Your task to perform on an android device: How do I get to the nearest Starbucks? Image 0: 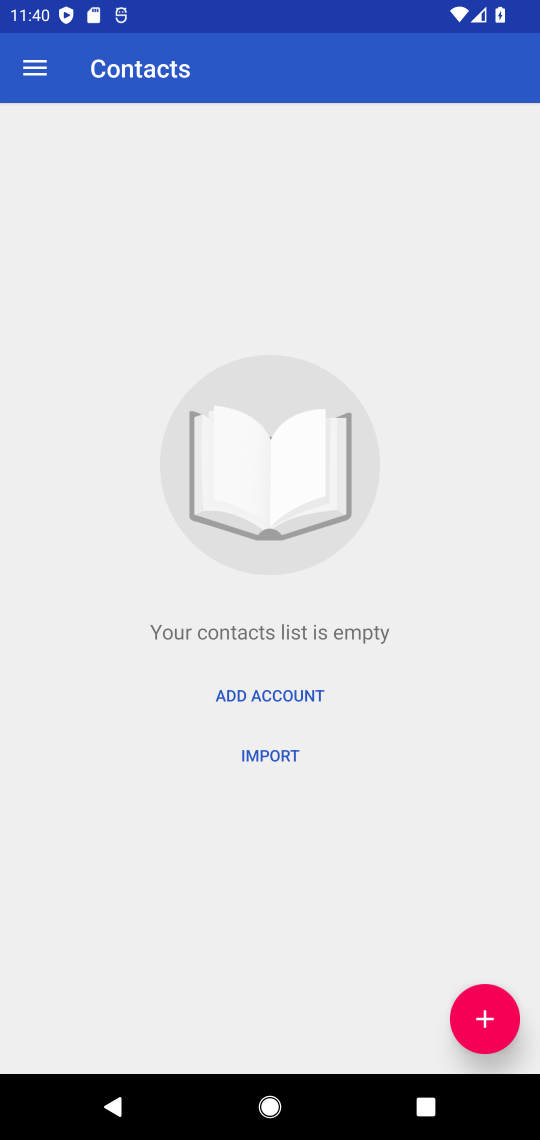
Step 0: press home button
Your task to perform on an android device: How do I get to the nearest Starbucks? Image 1: 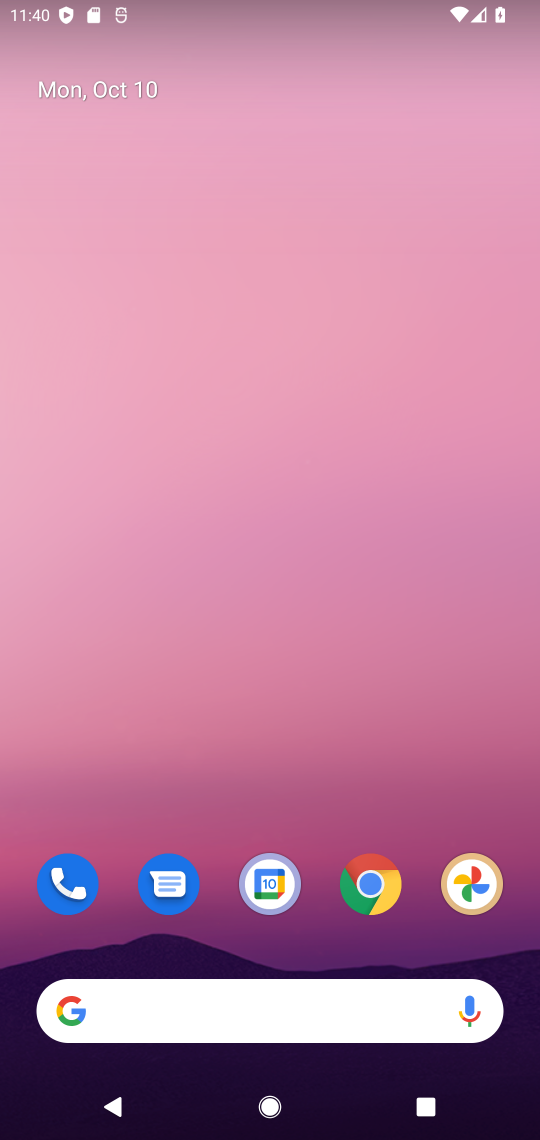
Step 1: click (375, 897)
Your task to perform on an android device: How do I get to the nearest Starbucks? Image 2: 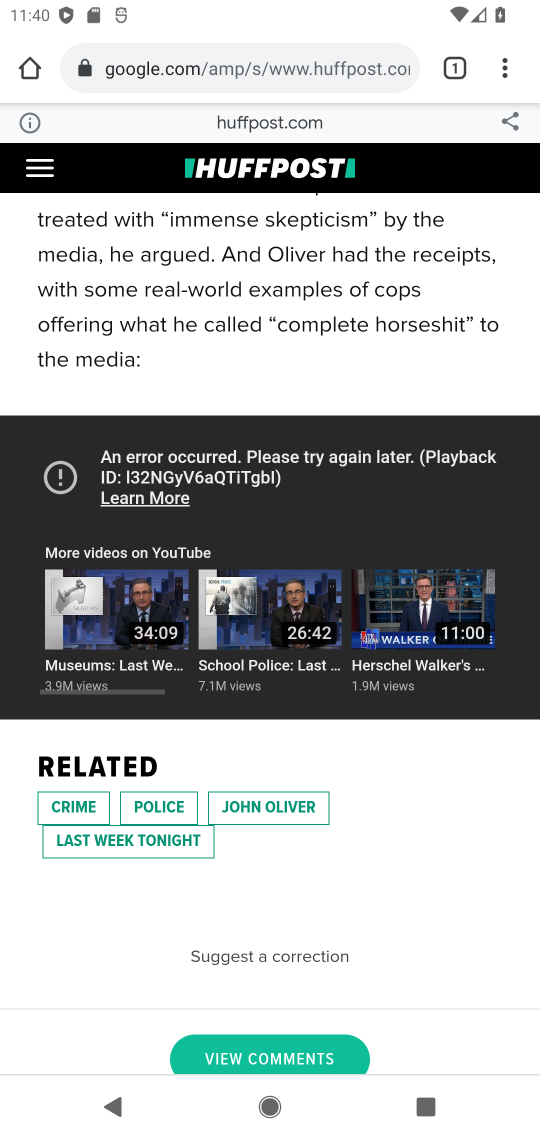
Step 2: click (318, 58)
Your task to perform on an android device: How do I get to the nearest Starbucks? Image 3: 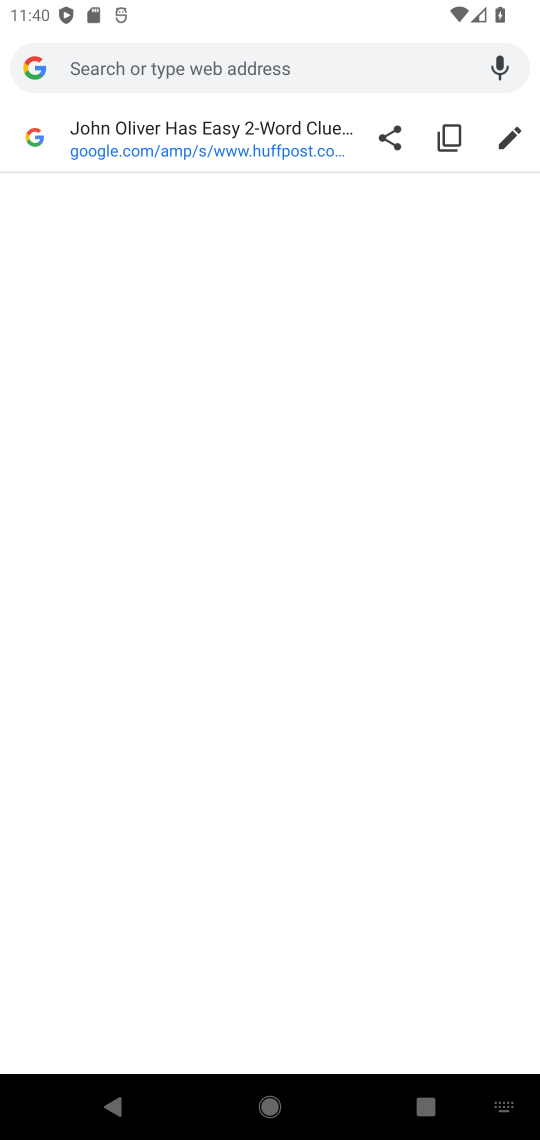
Step 3: type "nearest Starbucks"
Your task to perform on an android device: How do I get to the nearest Starbucks? Image 4: 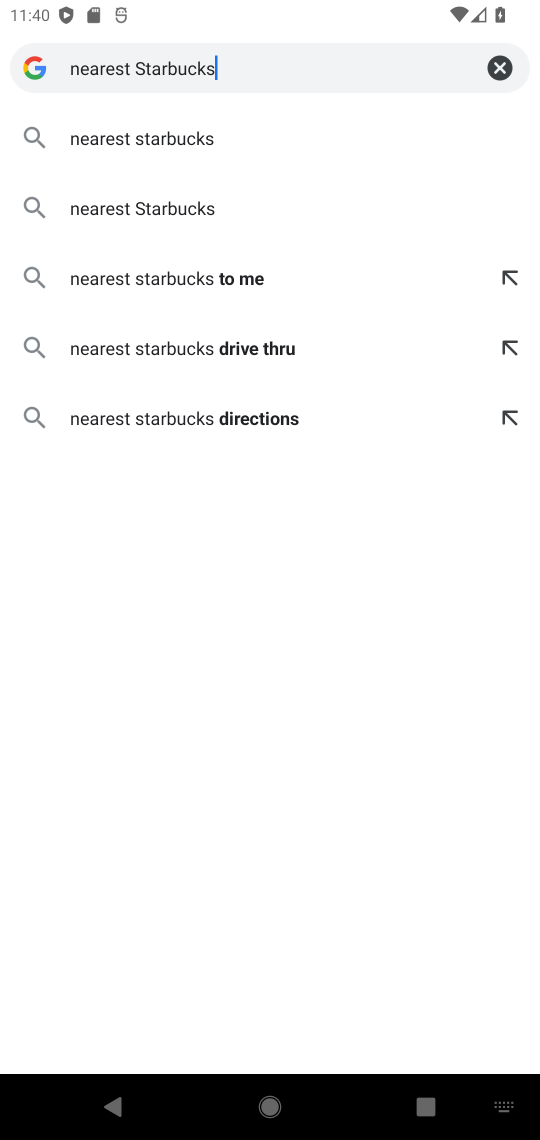
Step 4: press enter
Your task to perform on an android device: How do I get to the nearest Starbucks? Image 5: 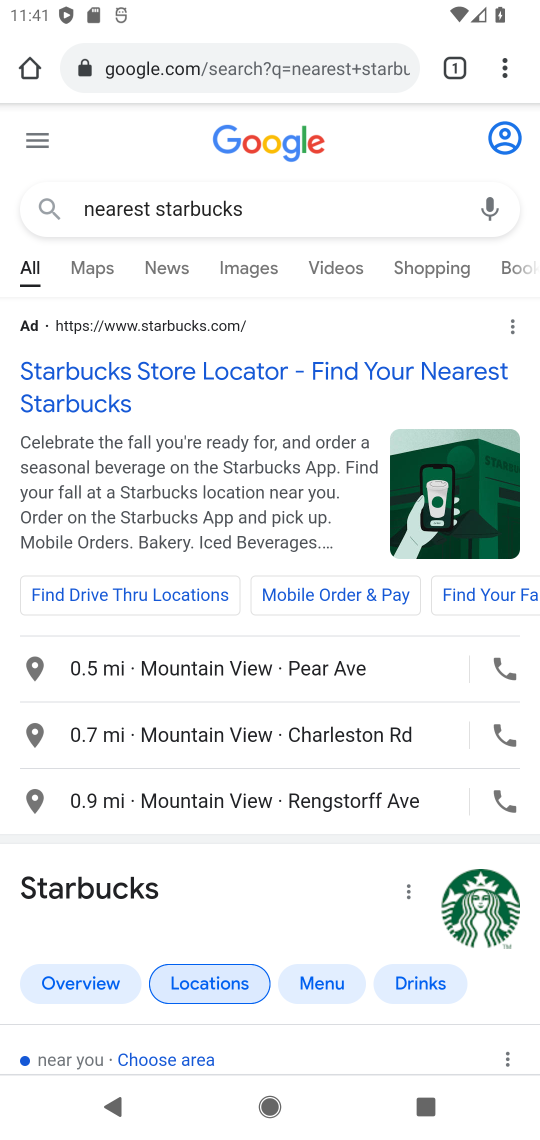
Step 5: click (259, 372)
Your task to perform on an android device: How do I get to the nearest Starbucks? Image 6: 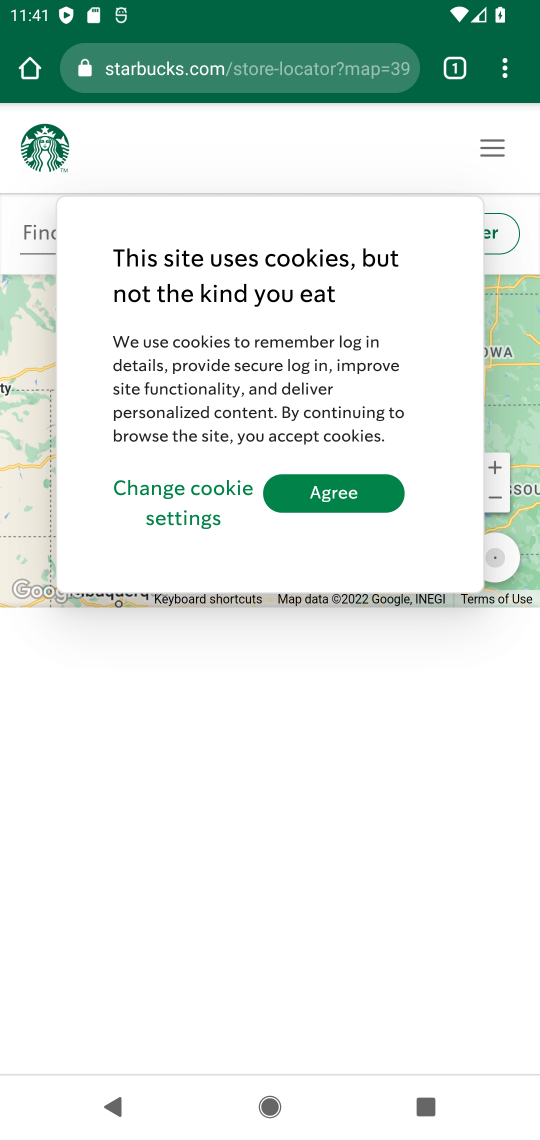
Step 6: click (330, 499)
Your task to perform on an android device: How do I get to the nearest Starbucks? Image 7: 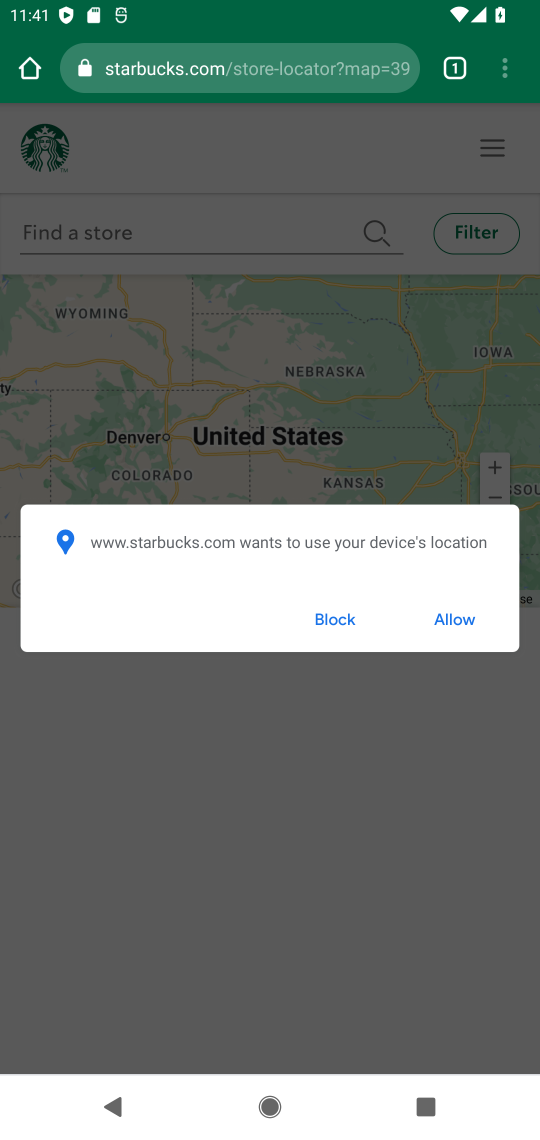
Step 7: click (457, 622)
Your task to perform on an android device: How do I get to the nearest Starbucks? Image 8: 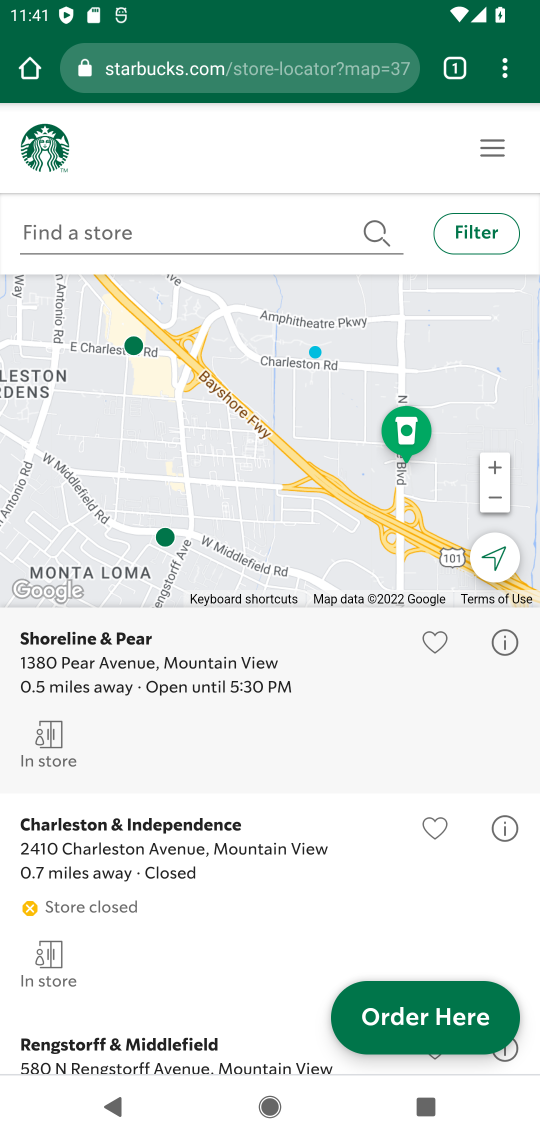
Step 8: task complete